Your task to perform on an android device: Is it going to rain tomorrow? Image 0: 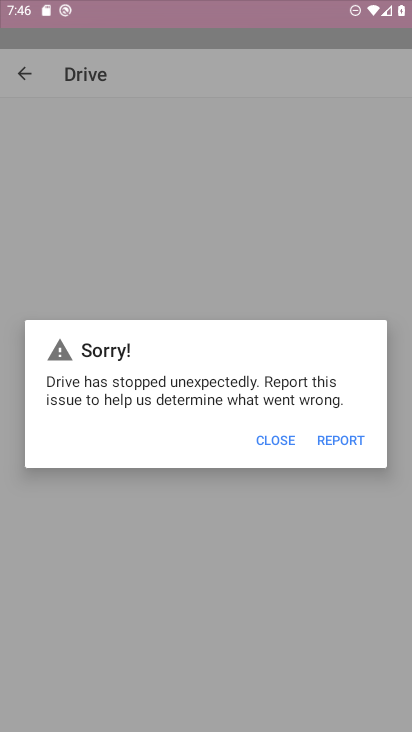
Step 0: drag from (220, 448) to (219, 177)
Your task to perform on an android device: Is it going to rain tomorrow? Image 1: 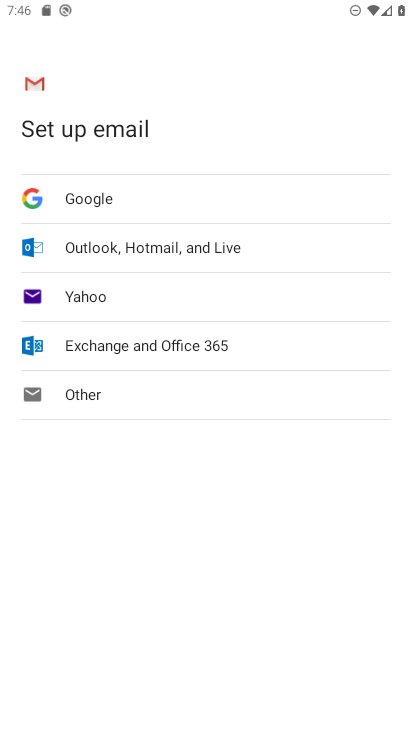
Step 1: press home button
Your task to perform on an android device: Is it going to rain tomorrow? Image 2: 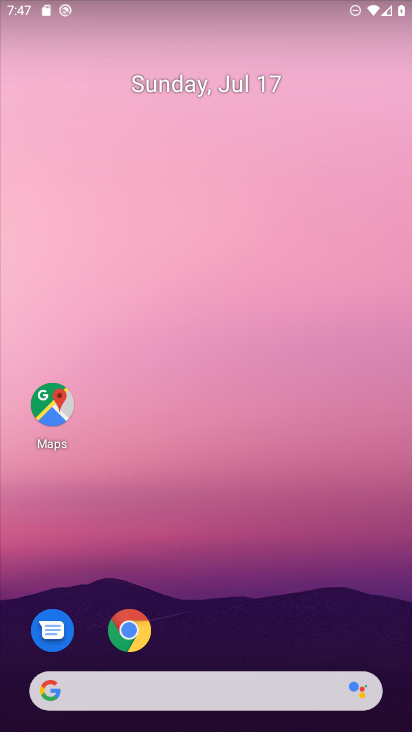
Step 2: drag from (252, 606) to (244, 198)
Your task to perform on an android device: Is it going to rain tomorrow? Image 3: 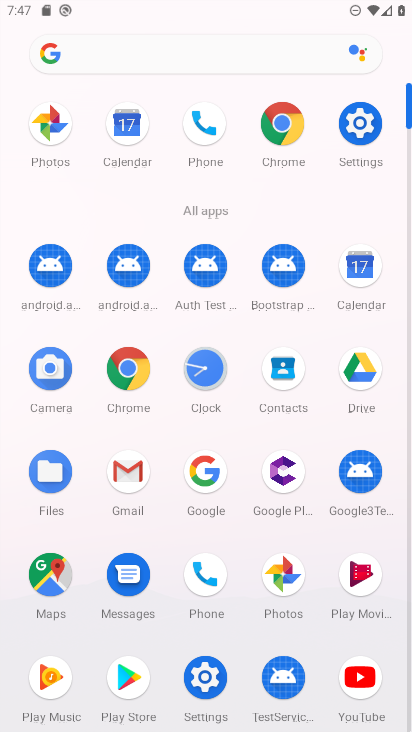
Step 3: click (361, 259)
Your task to perform on an android device: Is it going to rain tomorrow? Image 4: 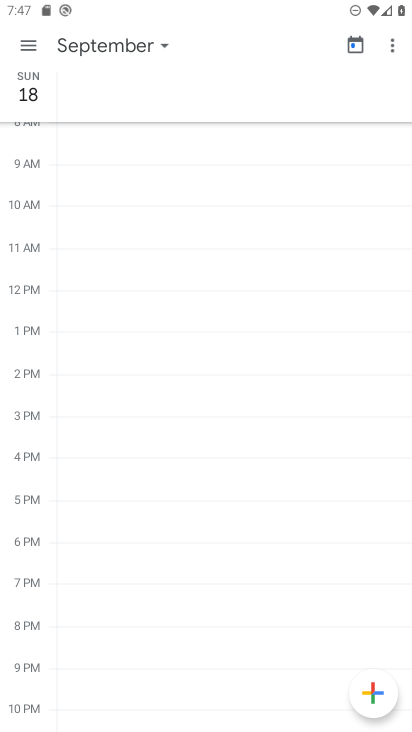
Step 4: task complete